Your task to perform on an android device: visit the assistant section in the google photos Image 0: 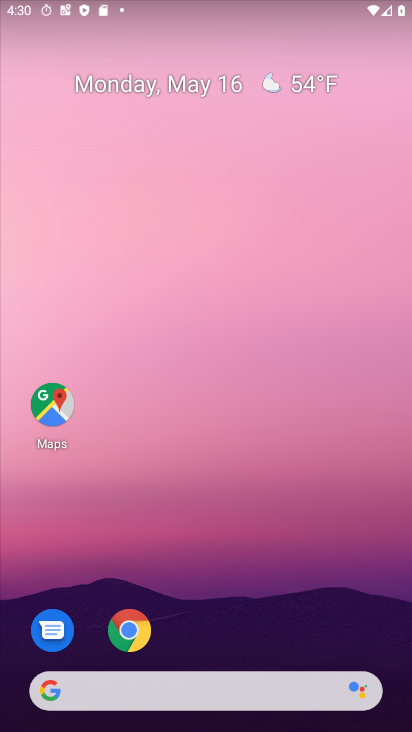
Step 0: drag from (240, 618) to (196, 71)
Your task to perform on an android device: visit the assistant section in the google photos Image 1: 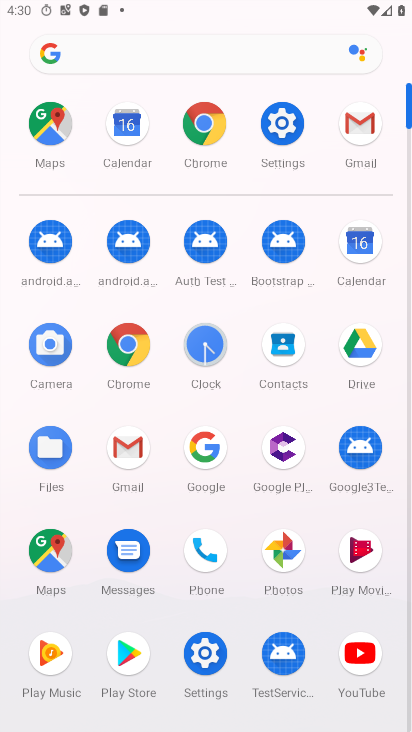
Step 1: click (283, 544)
Your task to perform on an android device: visit the assistant section in the google photos Image 2: 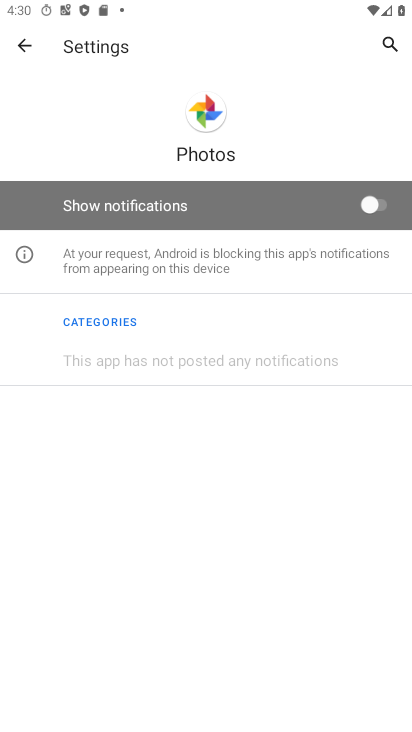
Step 2: click (32, 40)
Your task to perform on an android device: visit the assistant section in the google photos Image 3: 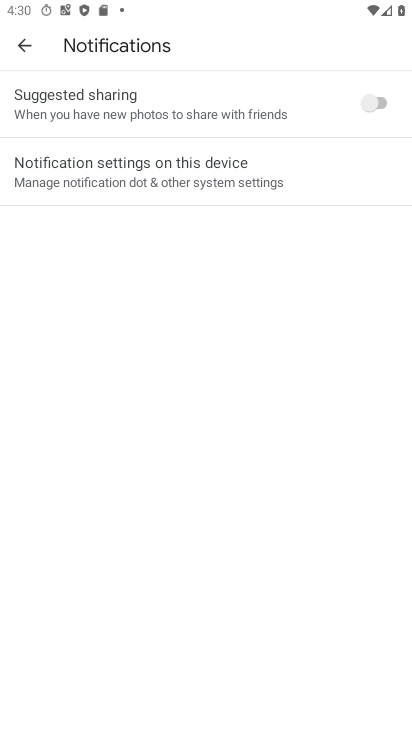
Step 3: click (32, 40)
Your task to perform on an android device: visit the assistant section in the google photos Image 4: 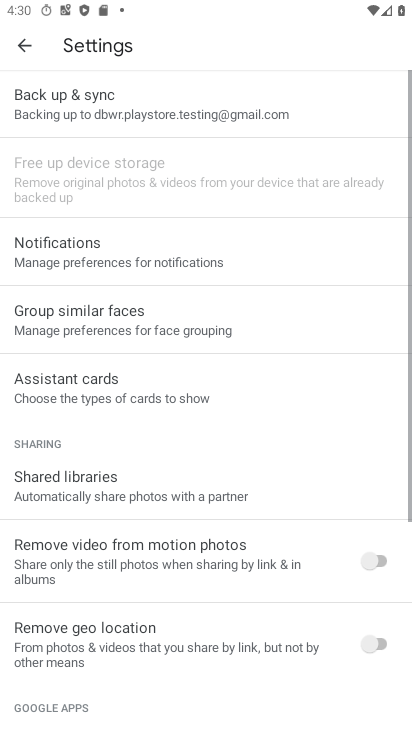
Step 4: click (32, 40)
Your task to perform on an android device: visit the assistant section in the google photos Image 5: 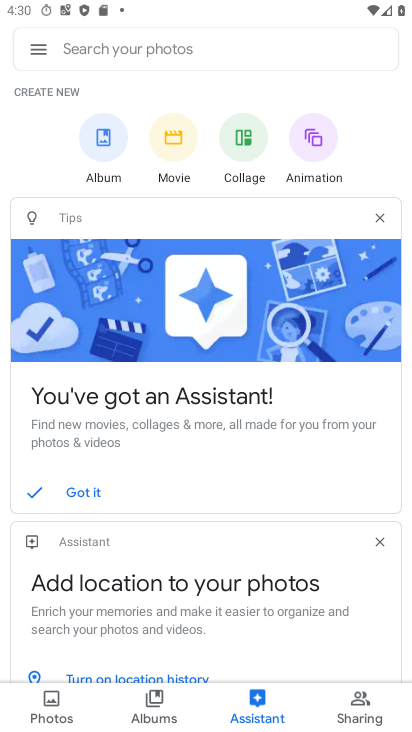
Step 5: task complete